Your task to perform on an android device: Open ESPN.com Image 0: 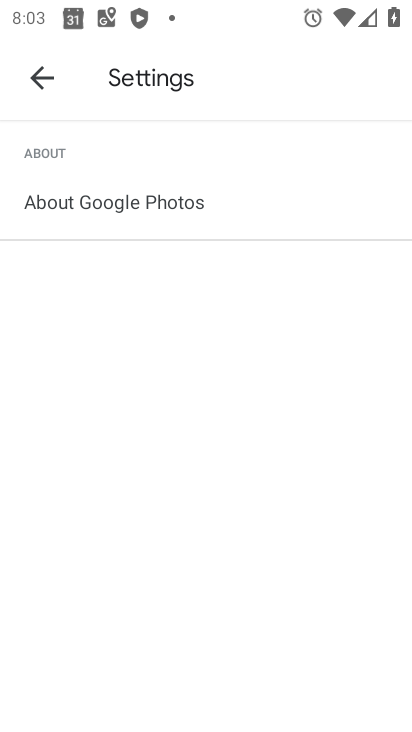
Step 0: press home button
Your task to perform on an android device: Open ESPN.com Image 1: 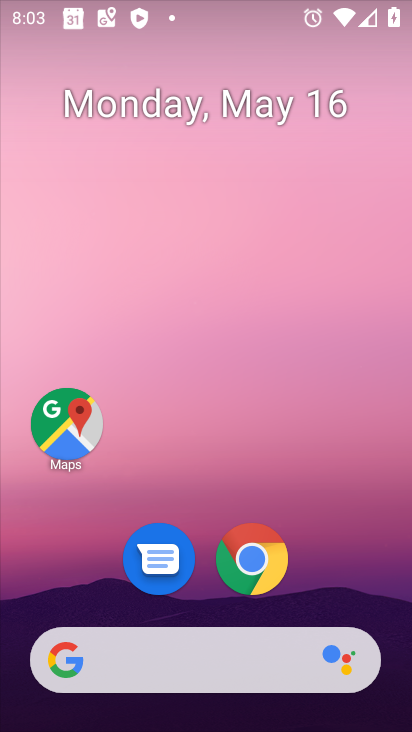
Step 1: drag from (379, 595) to (342, 256)
Your task to perform on an android device: Open ESPN.com Image 2: 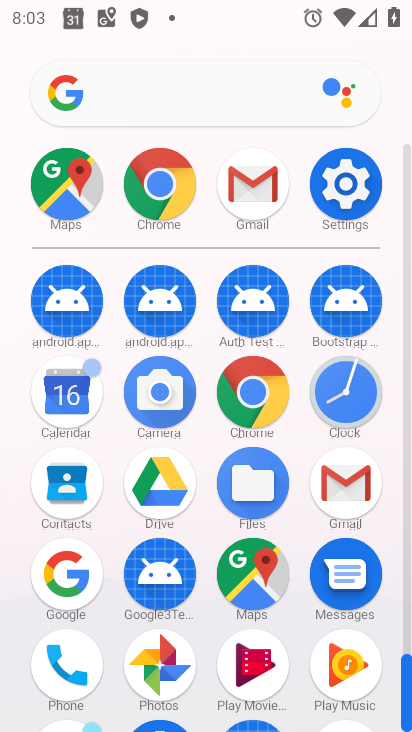
Step 2: click (144, 196)
Your task to perform on an android device: Open ESPN.com Image 3: 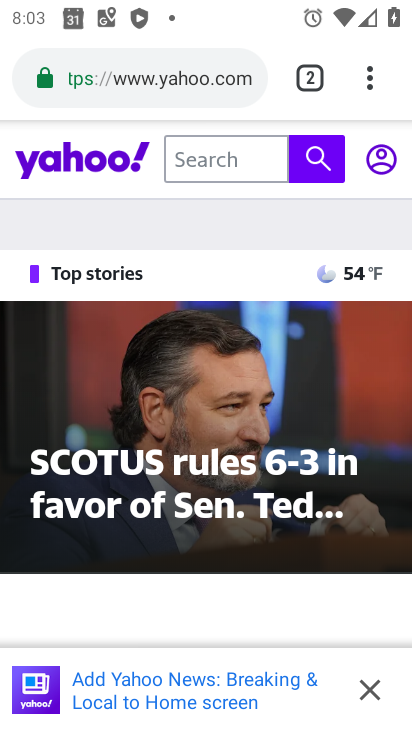
Step 3: click (309, 74)
Your task to perform on an android device: Open ESPN.com Image 4: 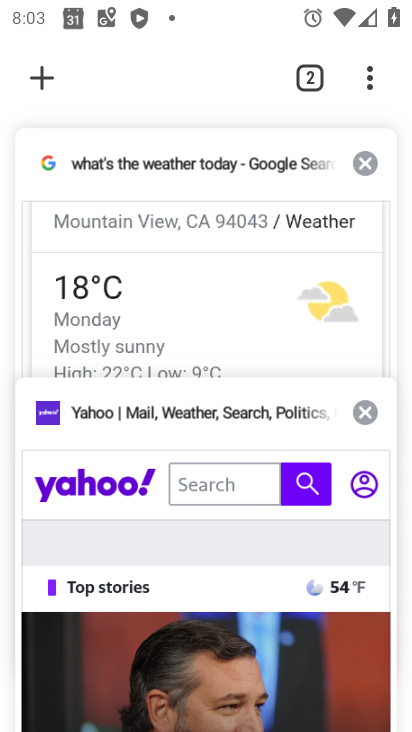
Step 4: click (39, 84)
Your task to perform on an android device: Open ESPN.com Image 5: 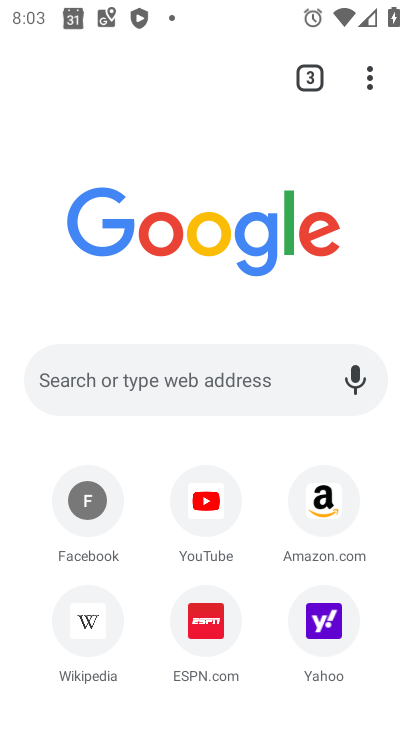
Step 5: click (230, 376)
Your task to perform on an android device: Open ESPN.com Image 6: 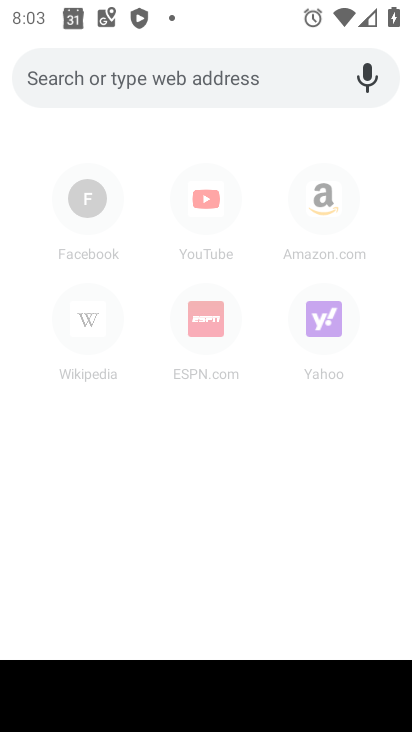
Step 6: type "espn.com"
Your task to perform on an android device: Open ESPN.com Image 7: 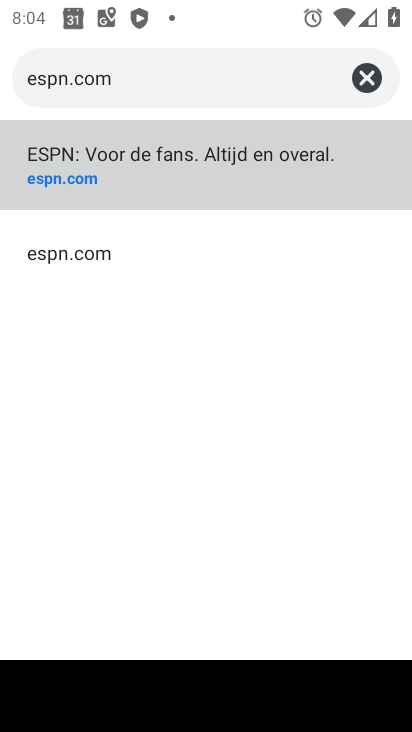
Step 7: click (173, 168)
Your task to perform on an android device: Open ESPN.com Image 8: 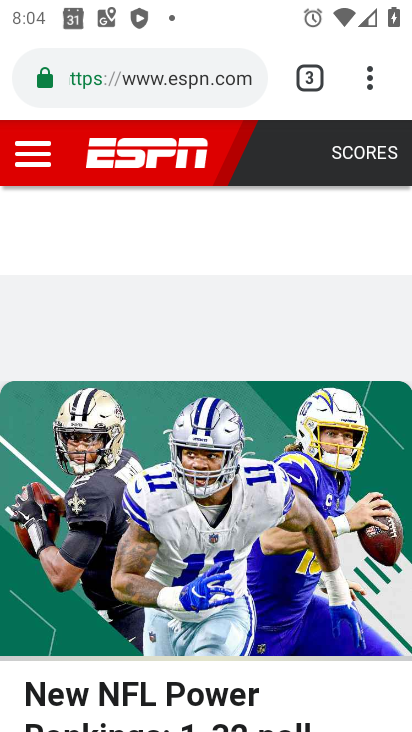
Step 8: task complete